Your task to perform on an android device: Open ESPN.com Image 0: 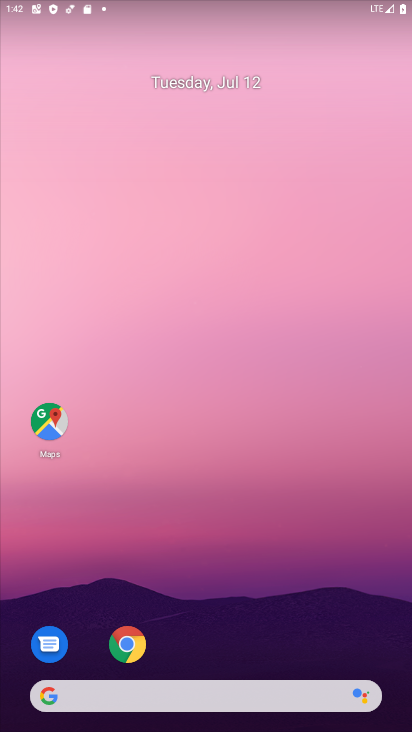
Step 0: click (133, 664)
Your task to perform on an android device: Open ESPN.com Image 1: 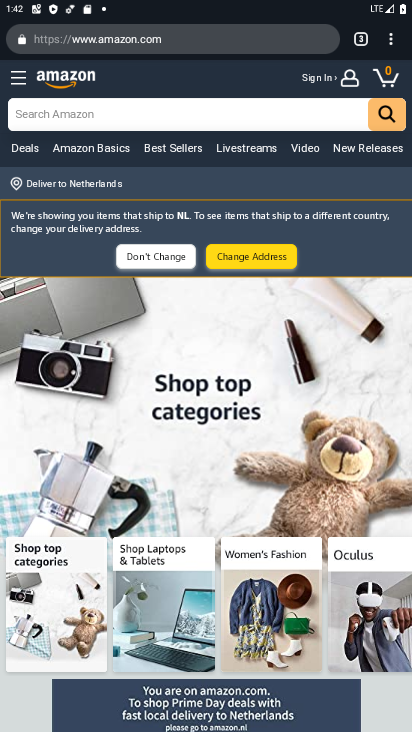
Step 1: click (359, 38)
Your task to perform on an android device: Open ESPN.com Image 2: 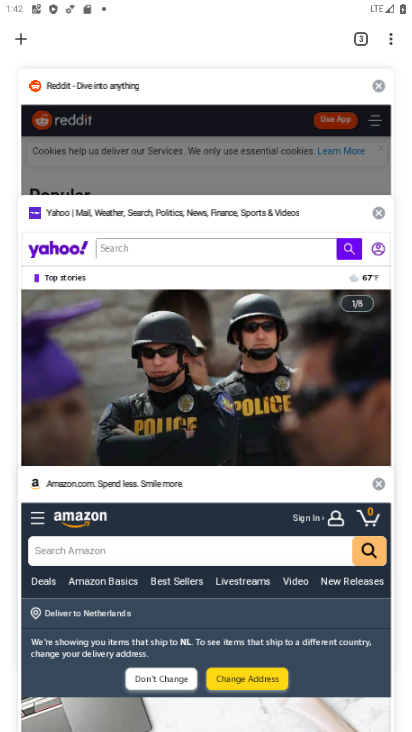
Step 2: click (30, 41)
Your task to perform on an android device: Open ESPN.com Image 3: 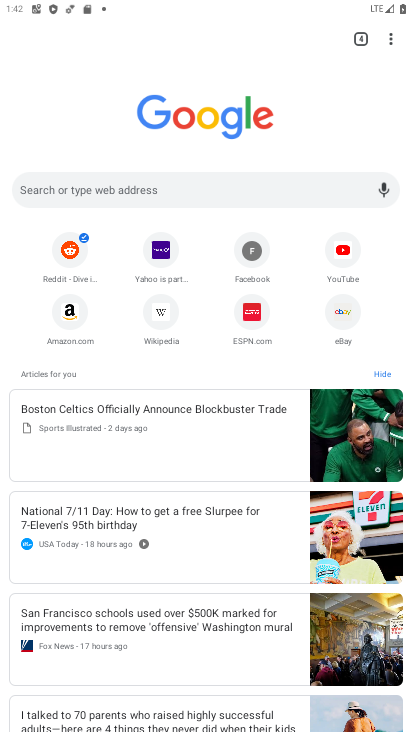
Step 3: click (251, 320)
Your task to perform on an android device: Open ESPN.com Image 4: 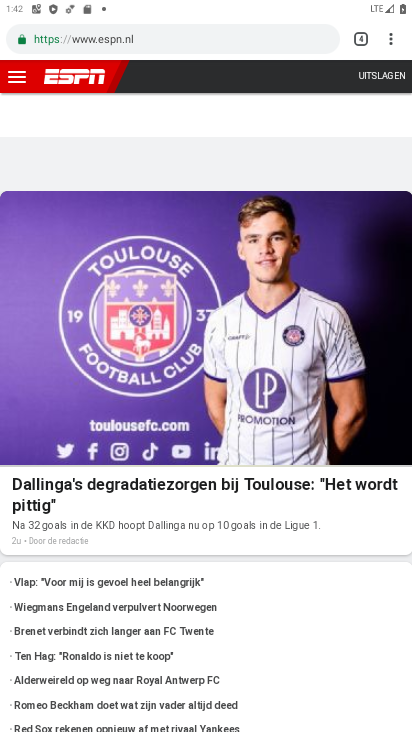
Step 4: task complete